Your task to perform on an android device: turn on wifi Image 0: 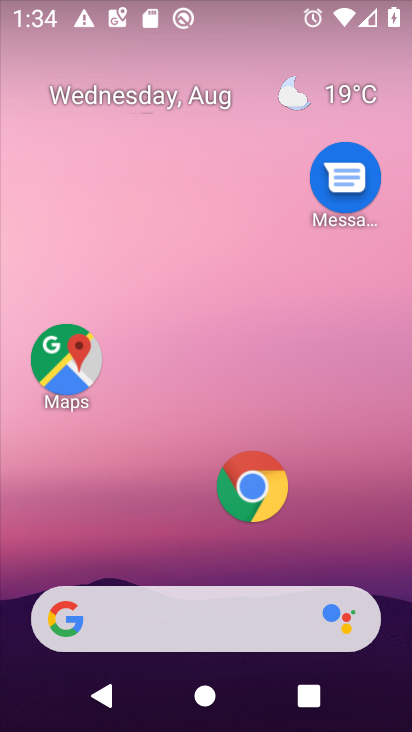
Step 0: drag from (166, 46) to (244, 534)
Your task to perform on an android device: turn on wifi Image 1: 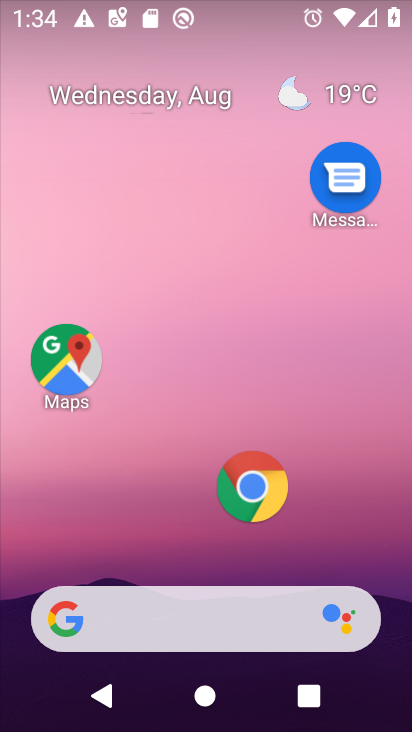
Step 1: task complete